Your task to perform on an android device: turn off wifi Image 0: 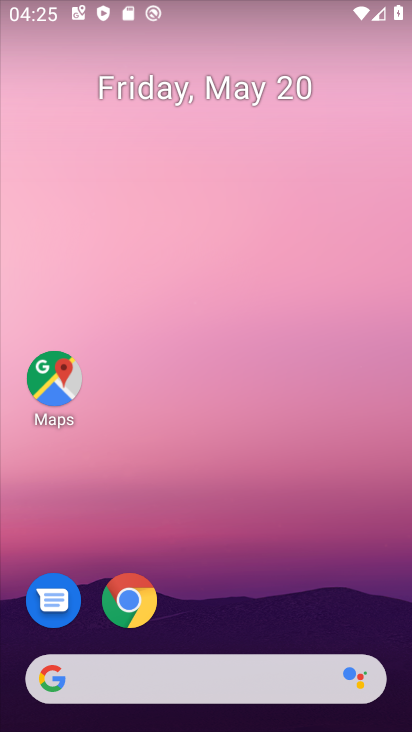
Step 0: drag from (240, 569) to (190, 31)
Your task to perform on an android device: turn off wifi Image 1: 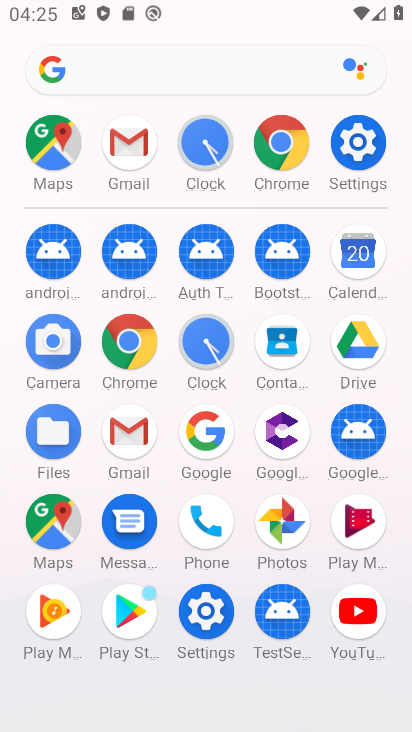
Step 1: click (206, 609)
Your task to perform on an android device: turn off wifi Image 2: 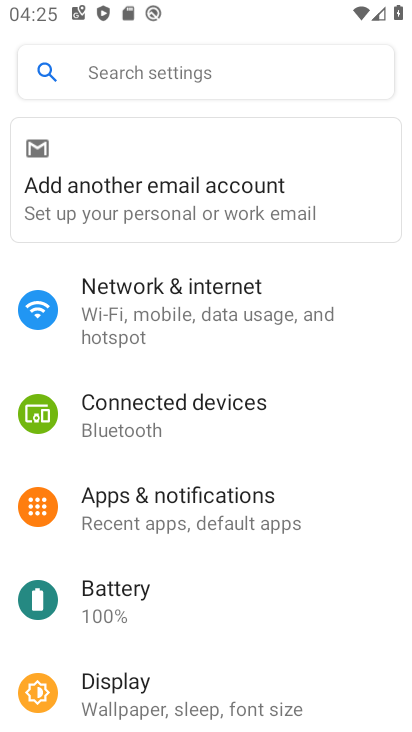
Step 2: click (183, 314)
Your task to perform on an android device: turn off wifi Image 3: 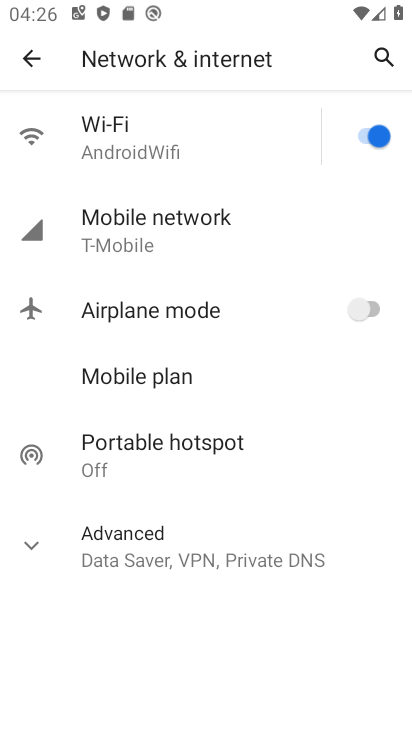
Step 3: click (29, 531)
Your task to perform on an android device: turn off wifi Image 4: 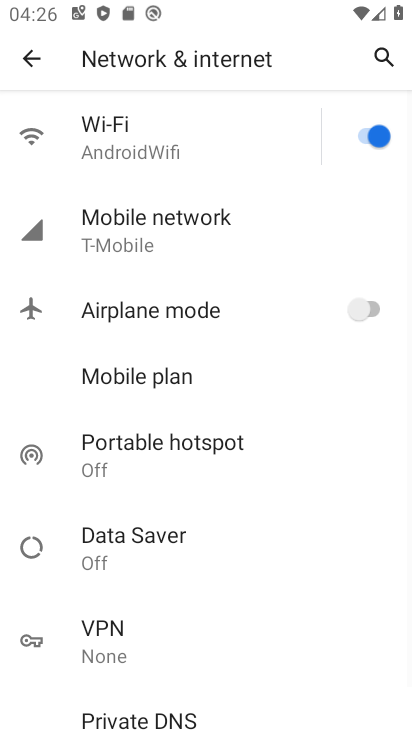
Step 4: click (367, 129)
Your task to perform on an android device: turn off wifi Image 5: 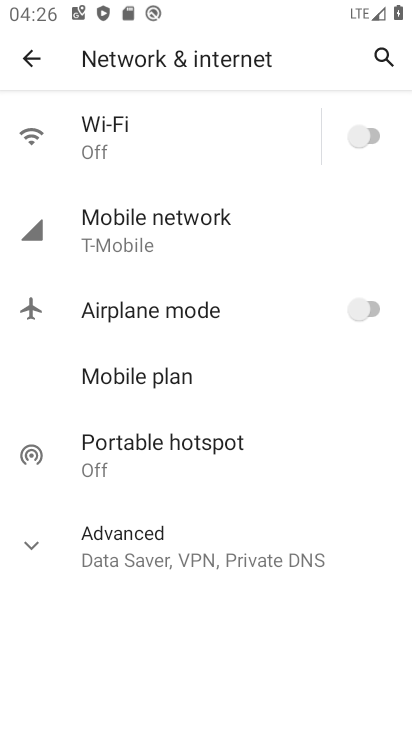
Step 5: task complete